Your task to perform on an android device: Open the web browser Image 0: 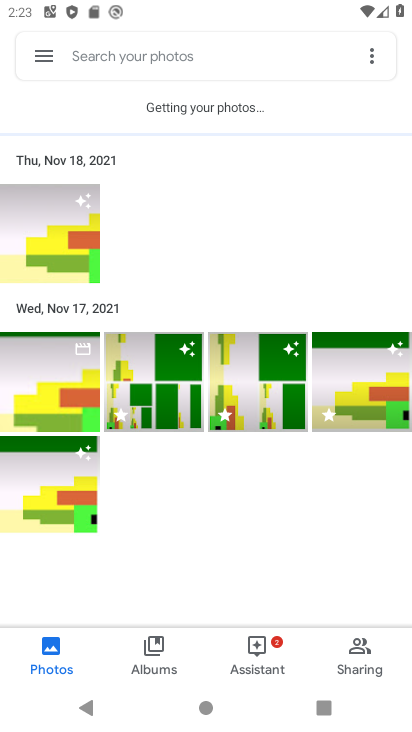
Step 0: press home button
Your task to perform on an android device: Open the web browser Image 1: 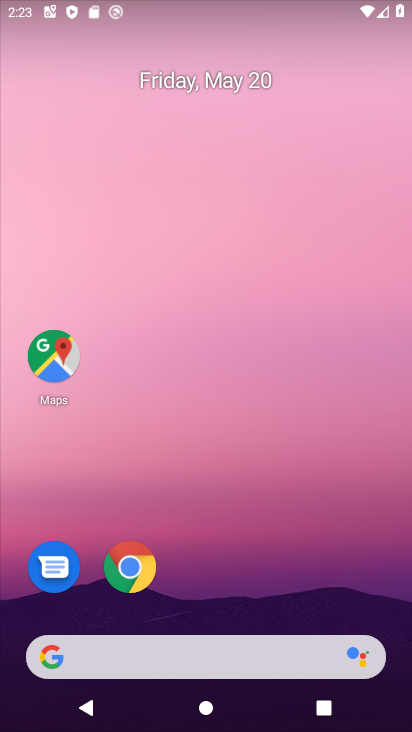
Step 1: click (146, 561)
Your task to perform on an android device: Open the web browser Image 2: 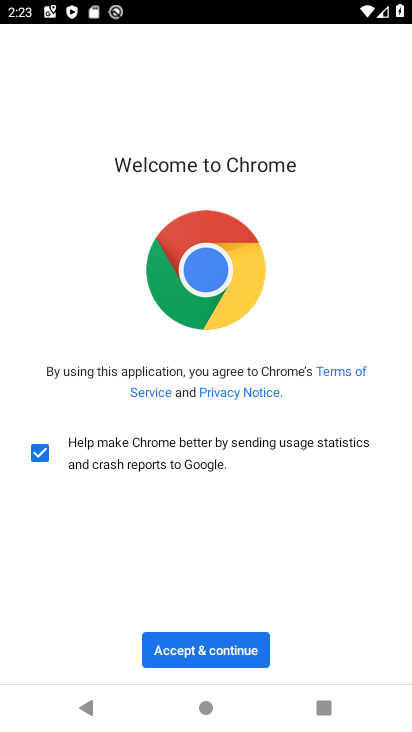
Step 2: click (187, 649)
Your task to perform on an android device: Open the web browser Image 3: 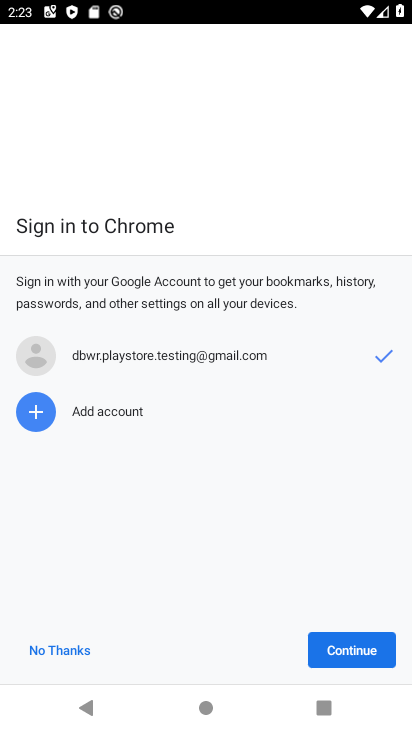
Step 3: click (358, 645)
Your task to perform on an android device: Open the web browser Image 4: 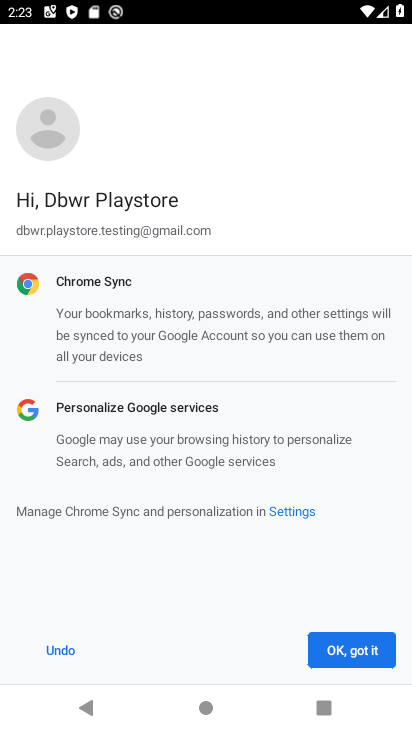
Step 4: click (358, 645)
Your task to perform on an android device: Open the web browser Image 5: 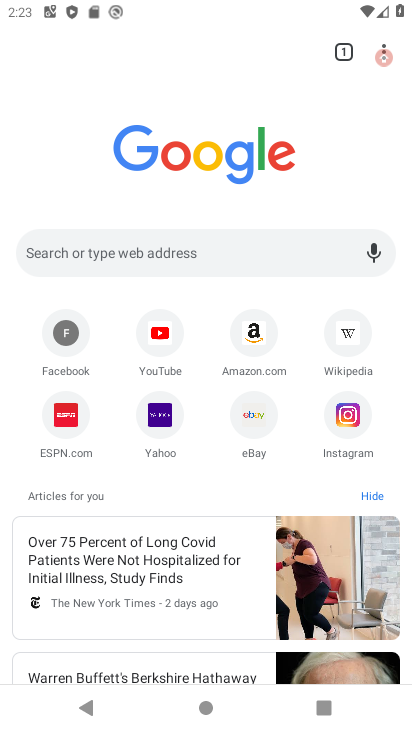
Step 5: task complete